Your task to perform on an android device: Set the phone to "Do not disturb". Image 0: 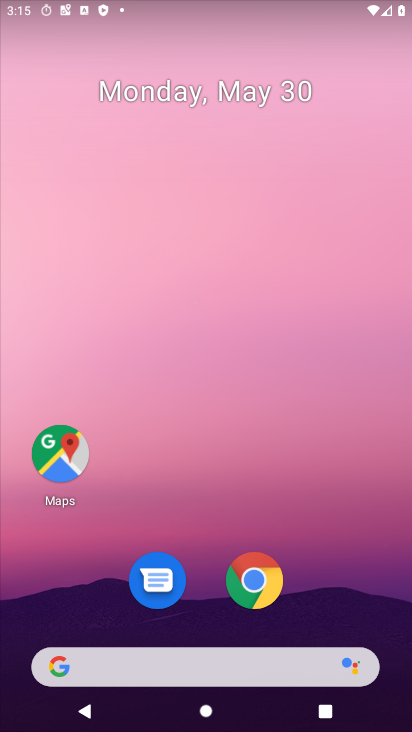
Step 0: drag from (301, 596) to (279, 122)
Your task to perform on an android device: Set the phone to "Do not disturb". Image 1: 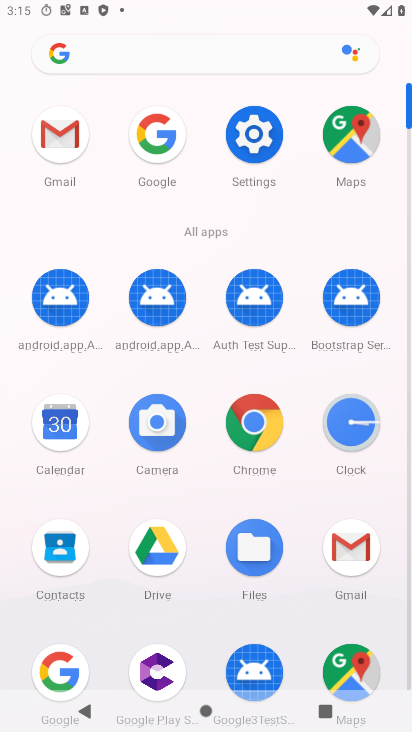
Step 1: click (254, 136)
Your task to perform on an android device: Set the phone to "Do not disturb". Image 2: 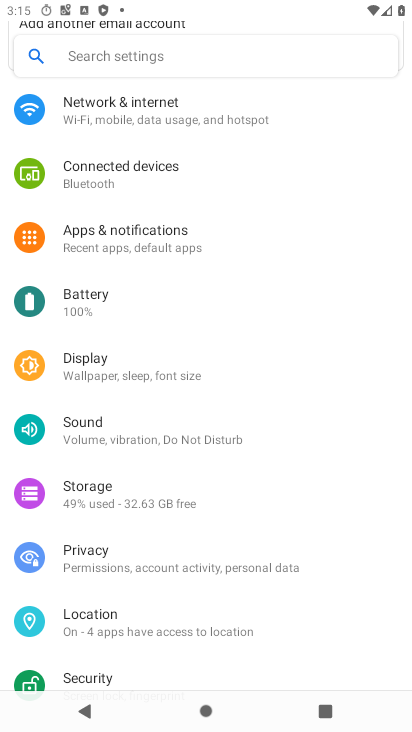
Step 2: click (134, 443)
Your task to perform on an android device: Set the phone to "Do not disturb". Image 3: 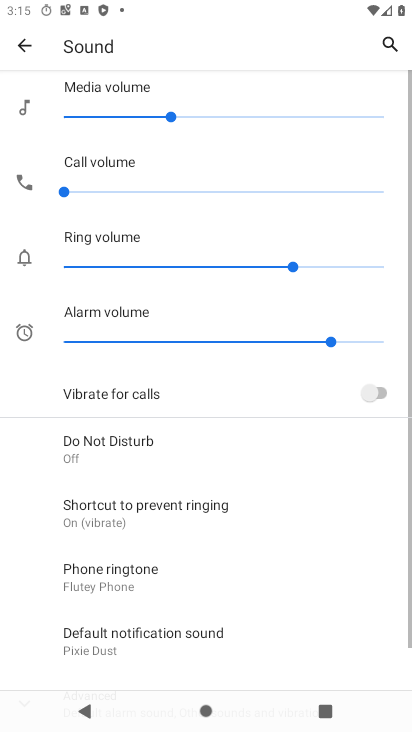
Step 3: click (102, 455)
Your task to perform on an android device: Set the phone to "Do not disturb". Image 4: 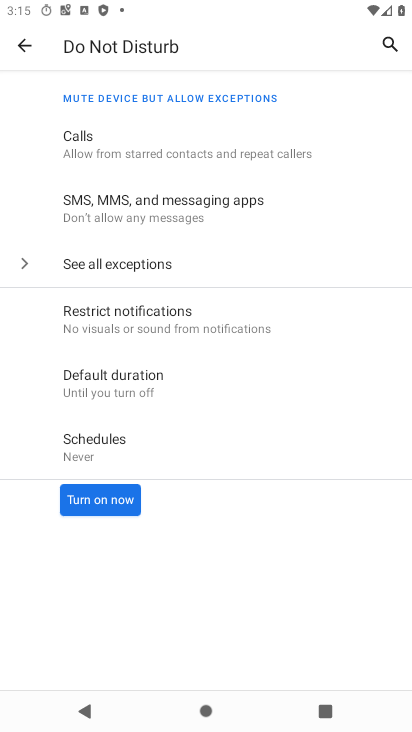
Step 4: click (88, 502)
Your task to perform on an android device: Set the phone to "Do not disturb". Image 5: 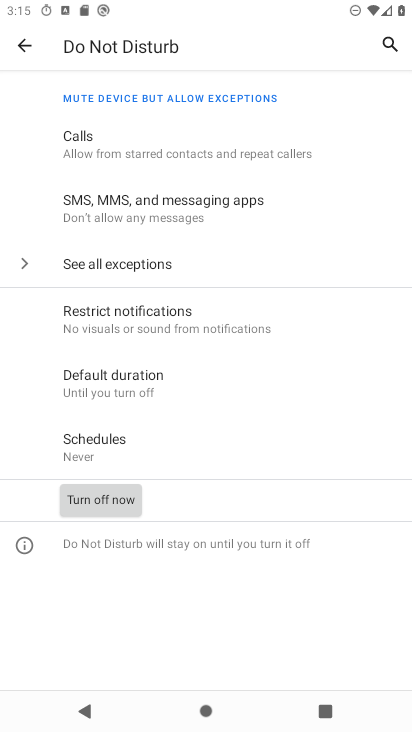
Step 5: task complete